Your task to perform on an android device: Open Maps and search for coffee Image 0: 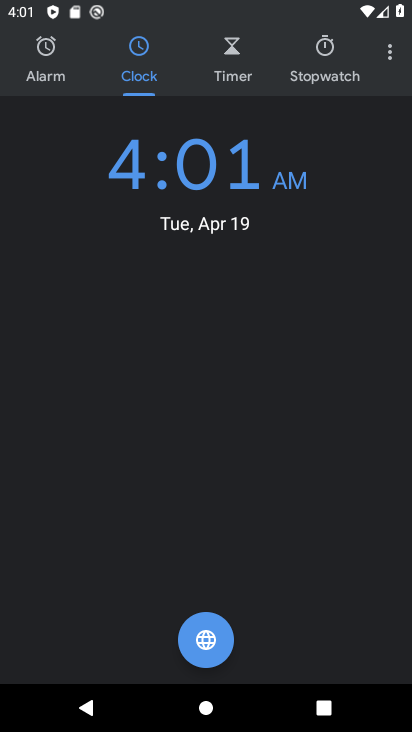
Step 0: press back button
Your task to perform on an android device: Open Maps and search for coffee Image 1: 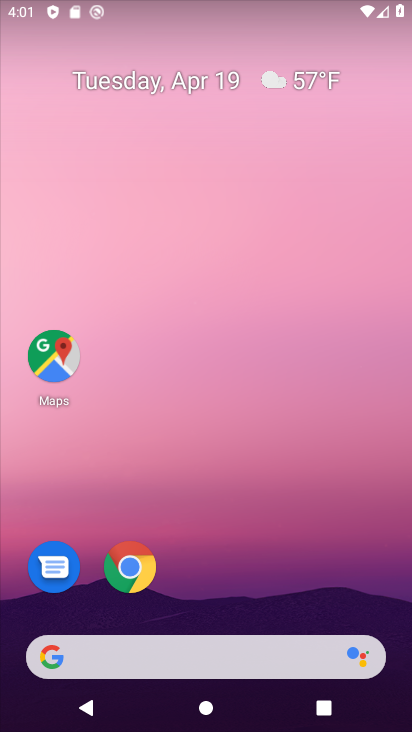
Step 1: drag from (189, 574) to (256, 95)
Your task to perform on an android device: Open Maps and search for coffee Image 2: 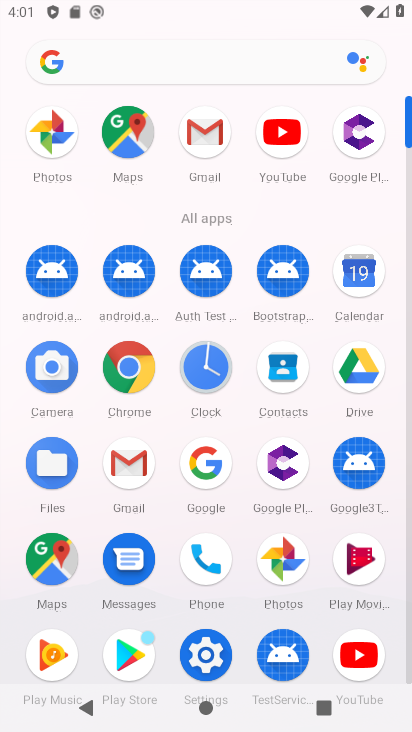
Step 2: click (55, 568)
Your task to perform on an android device: Open Maps and search for coffee Image 3: 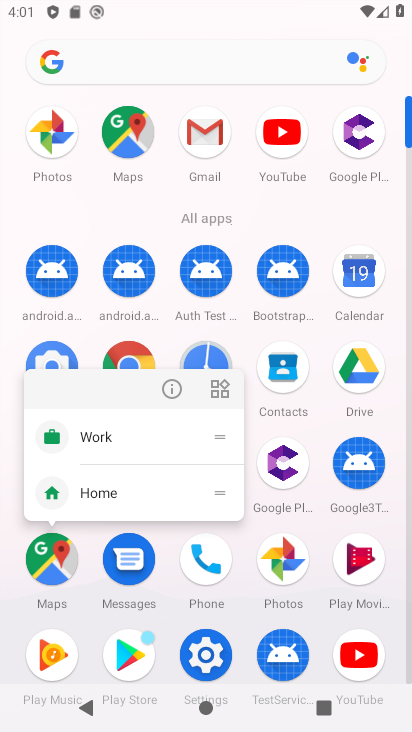
Step 3: click (55, 568)
Your task to perform on an android device: Open Maps and search for coffee Image 4: 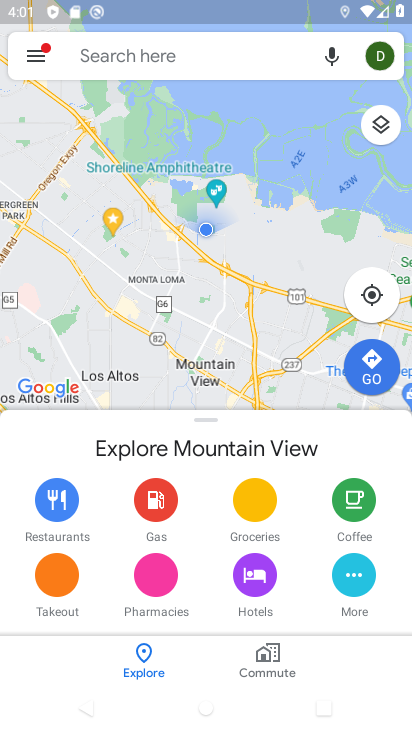
Step 4: click (200, 61)
Your task to perform on an android device: Open Maps and search for coffee Image 5: 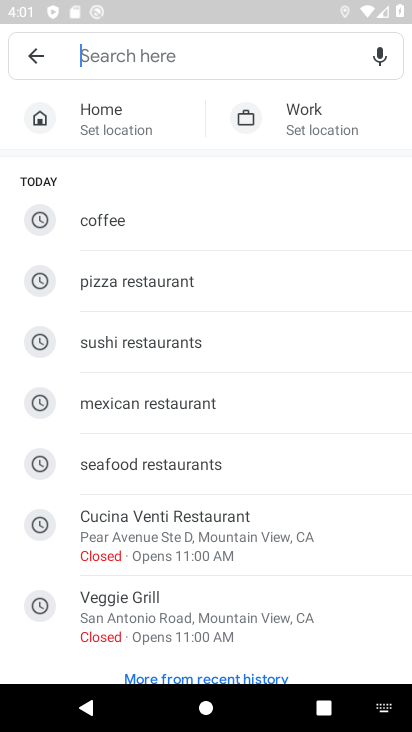
Step 5: type "coffee "
Your task to perform on an android device: Open Maps and search for coffee Image 6: 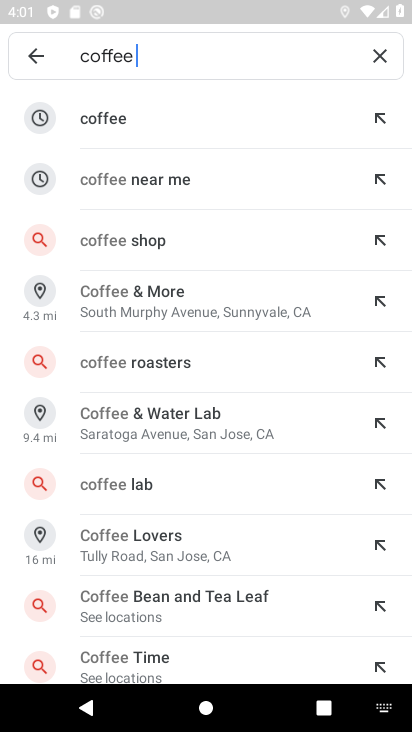
Step 6: click (138, 127)
Your task to perform on an android device: Open Maps and search for coffee Image 7: 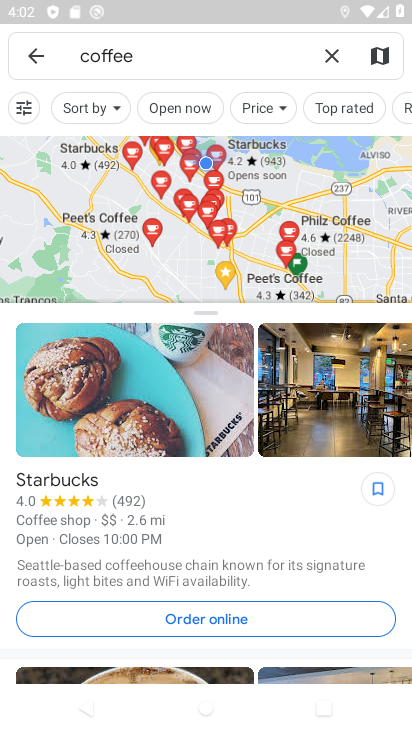
Step 7: task complete